Your task to perform on an android device: change the clock style Image 0: 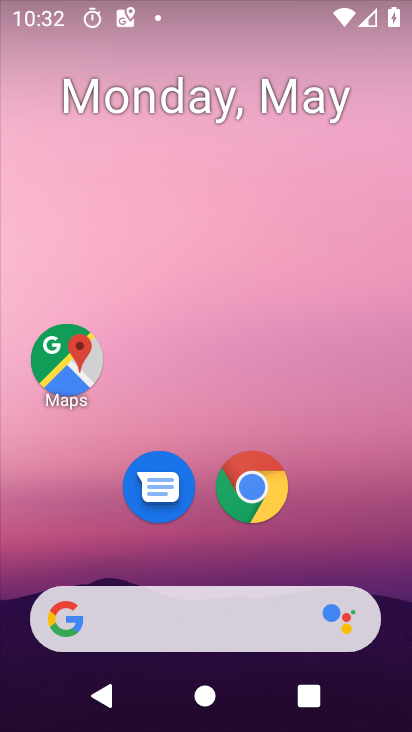
Step 0: drag from (287, 561) to (299, 123)
Your task to perform on an android device: change the clock style Image 1: 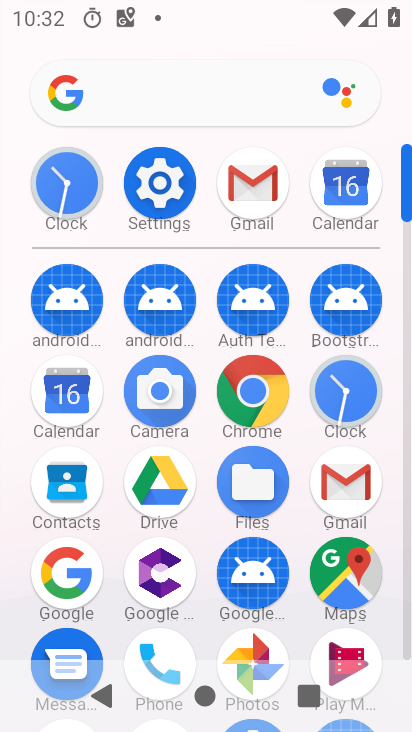
Step 1: click (349, 386)
Your task to perform on an android device: change the clock style Image 2: 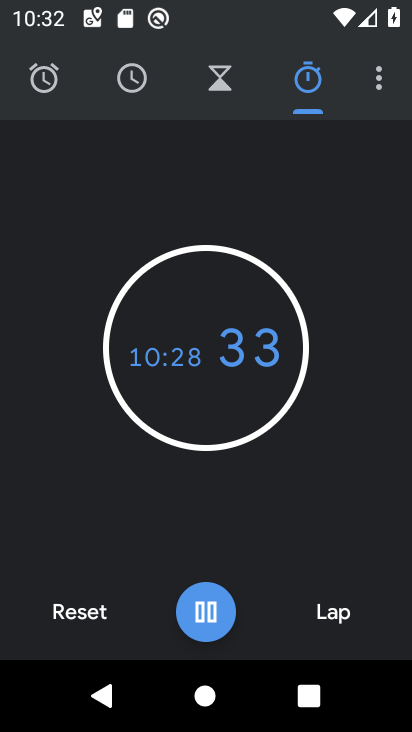
Step 2: click (369, 85)
Your task to perform on an android device: change the clock style Image 3: 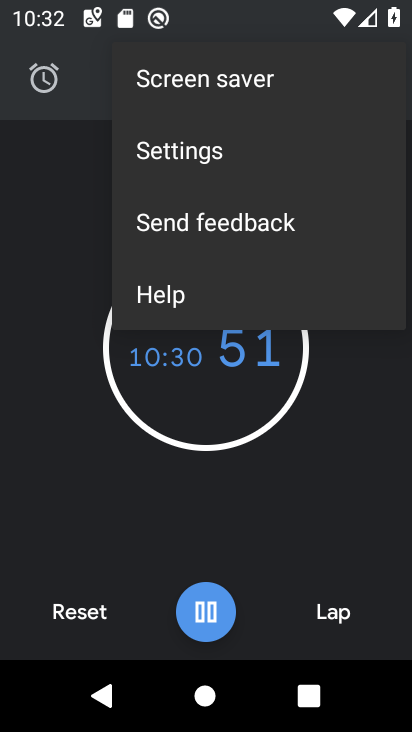
Step 3: click (250, 138)
Your task to perform on an android device: change the clock style Image 4: 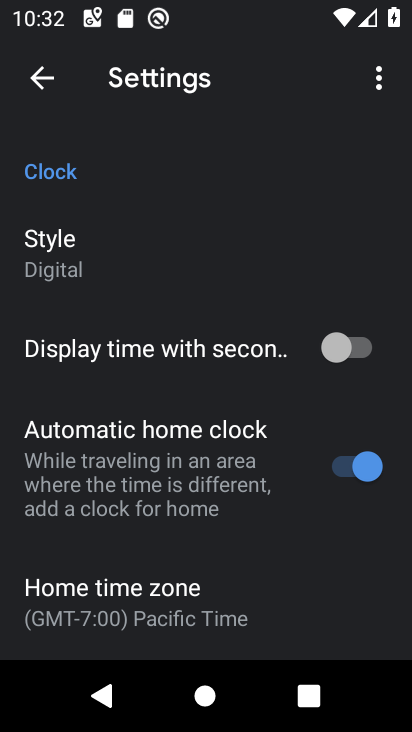
Step 4: click (96, 259)
Your task to perform on an android device: change the clock style Image 5: 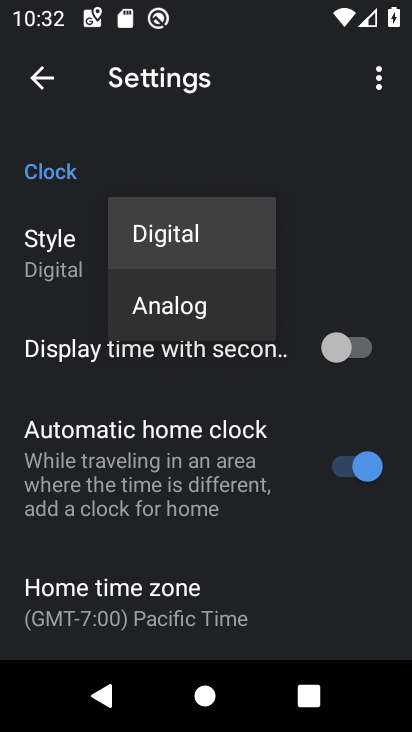
Step 5: click (159, 314)
Your task to perform on an android device: change the clock style Image 6: 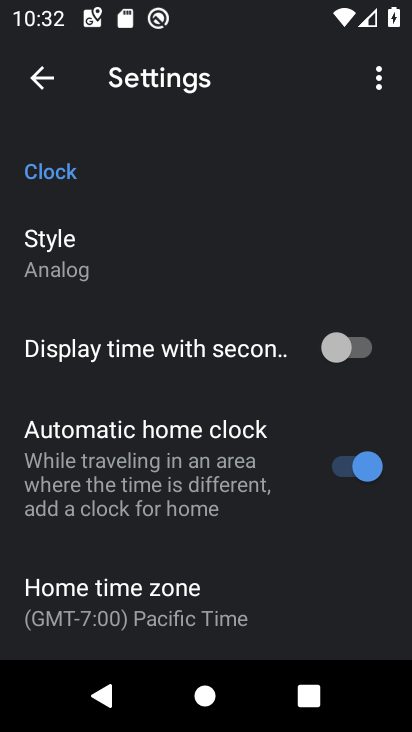
Step 6: task complete